Your task to perform on an android device: Search for flights from Boston to Zurich Image 0: 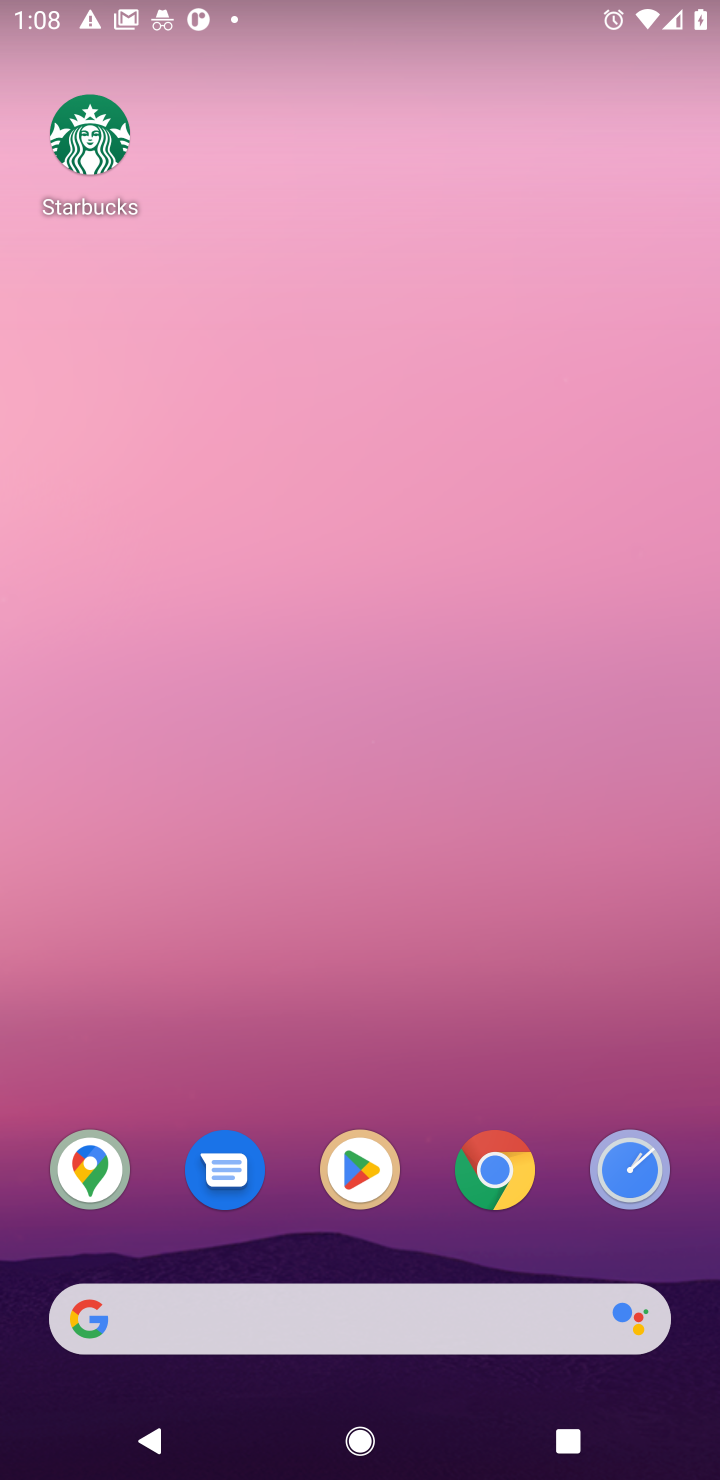
Step 0: click (503, 1181)
Your task to perform on an android device: Search for flights from Boston to Zurich Image 1: 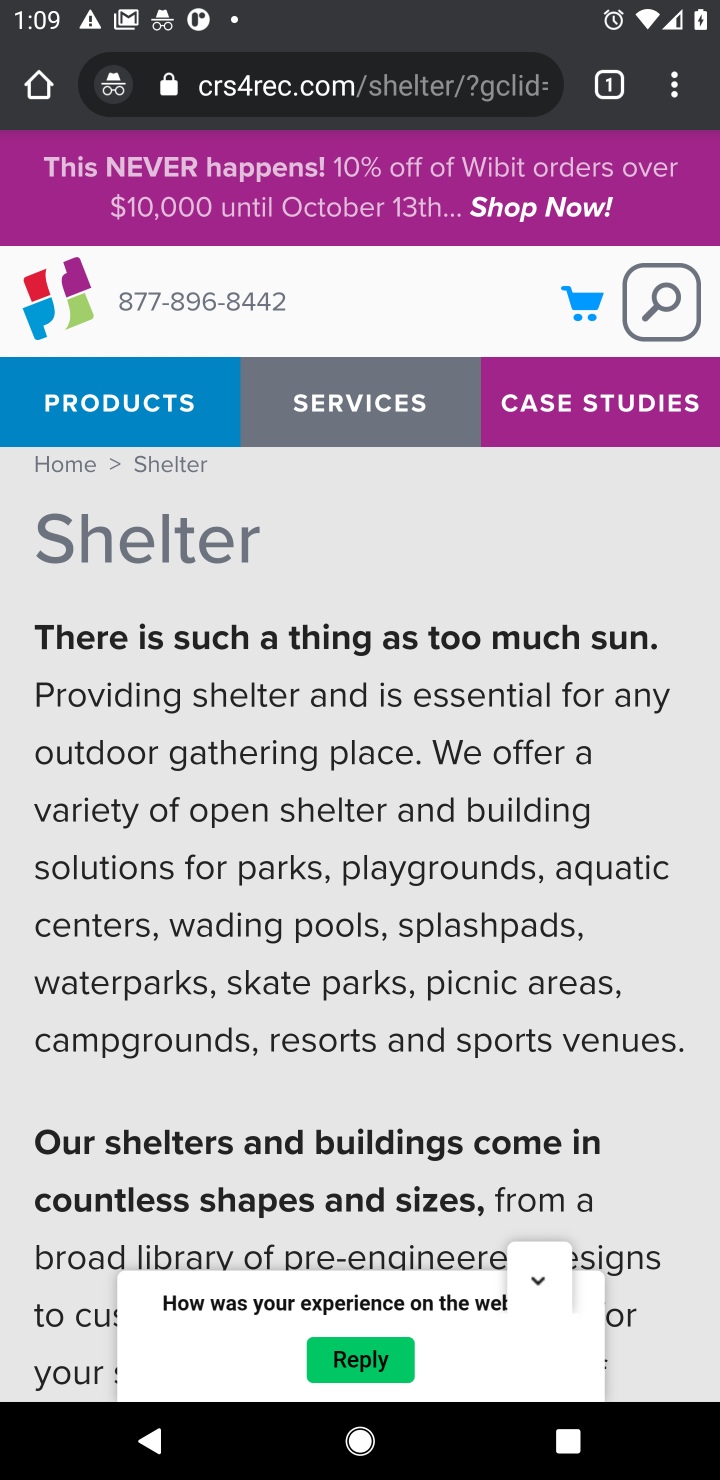
Step 1: click (368, 93)
Your task to perform on an android device: Search for flights from Boston to Zurich Image 2: 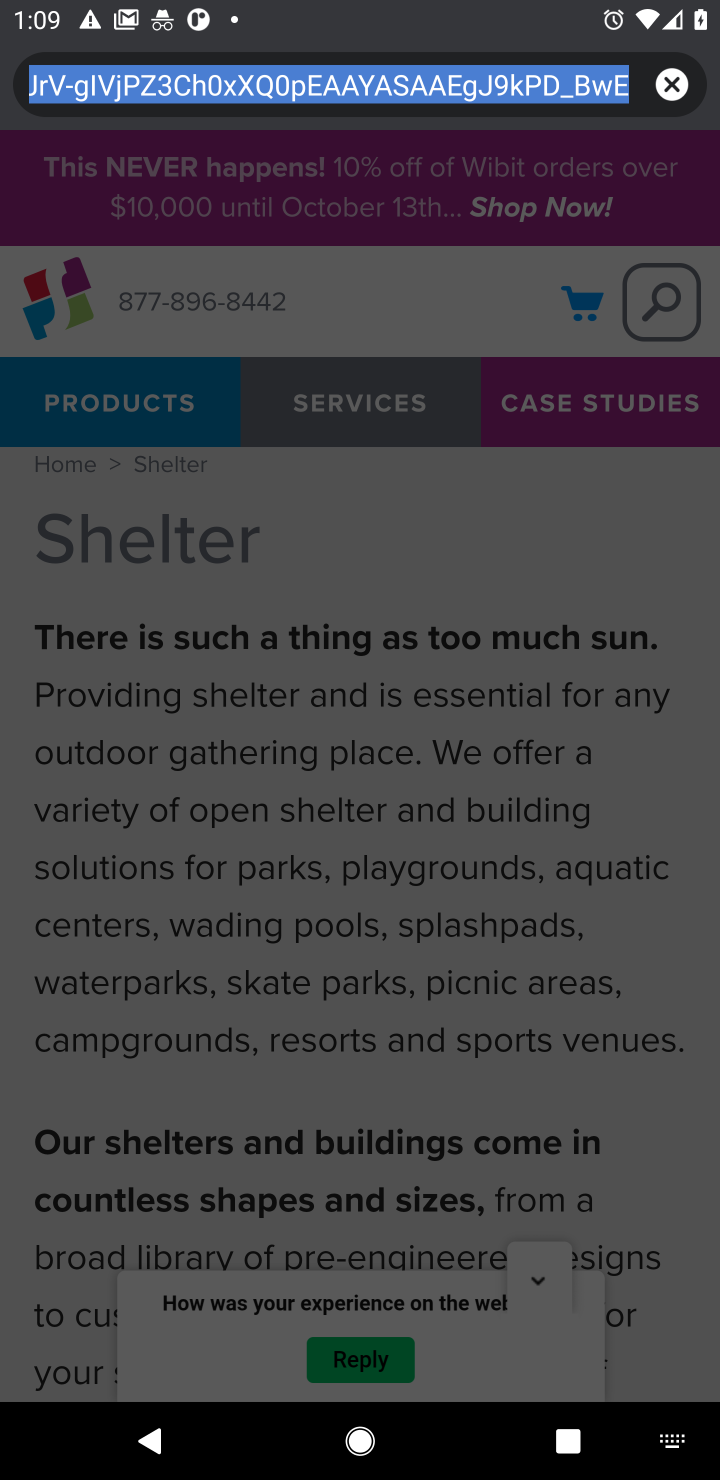
Step 2: click (663, 83)
Your task to perform on an android device: Search for flights from Boston to Zurich Image 3: 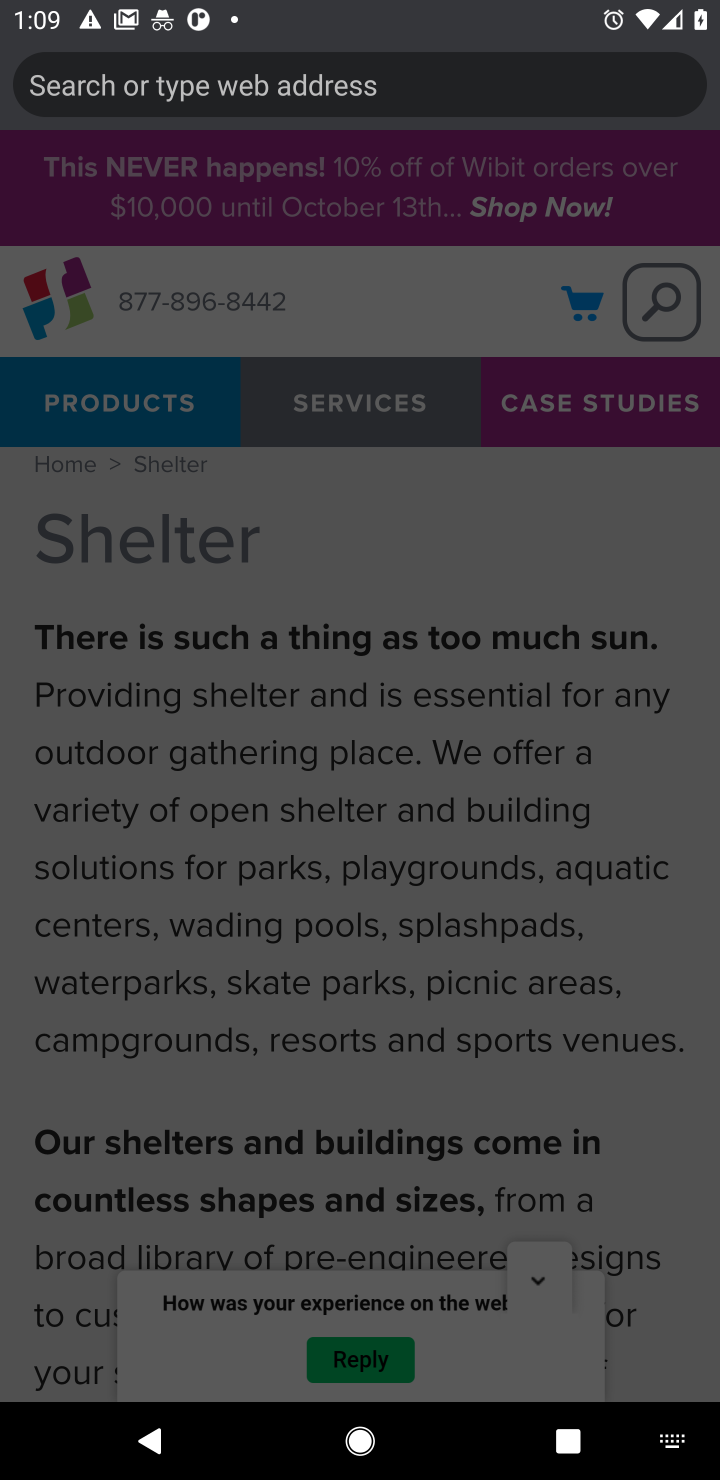
Step 3: type "flights from boston to zurich"
Your task to perform on an android device: Search for flights from Boston to Zurich Image 4: 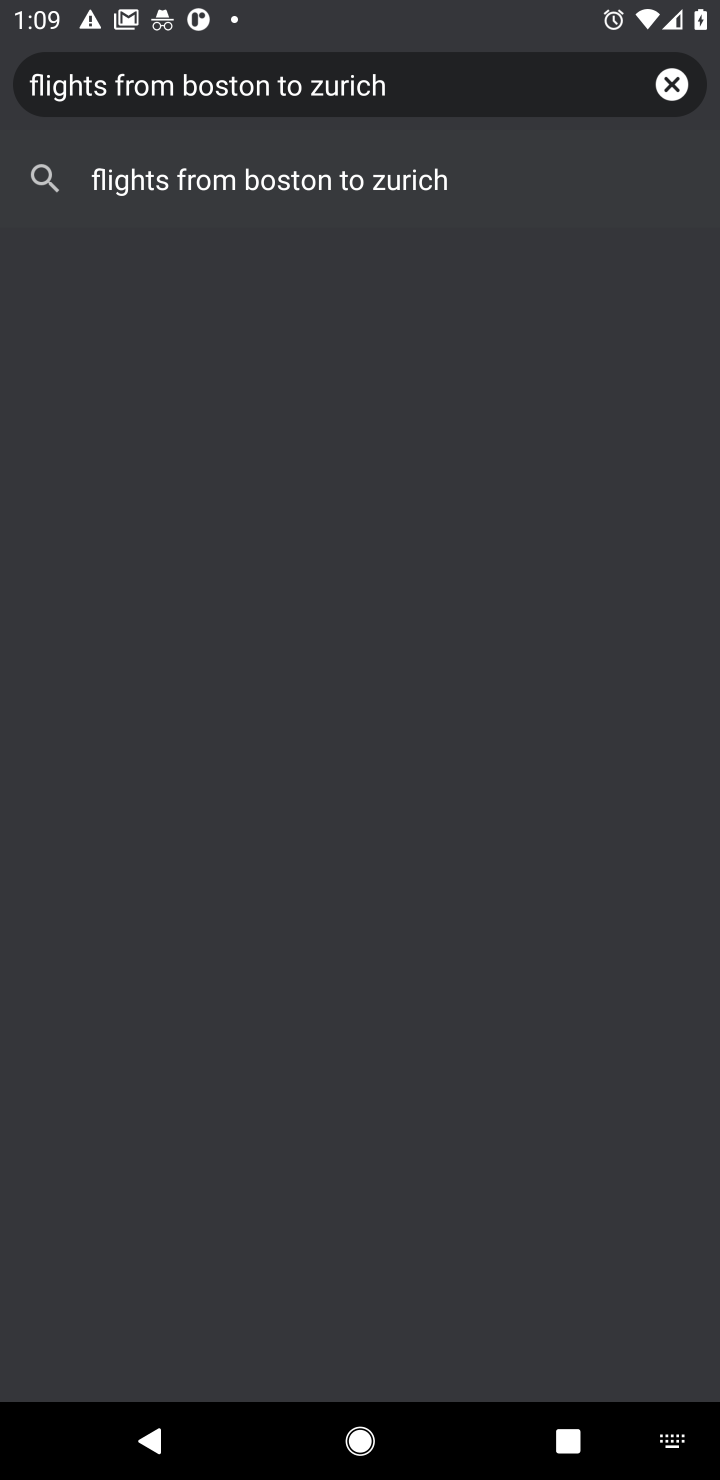
Step 4: type ""
Your task to perform on an android device: Search for flights from Boston to Zurich Image 5: 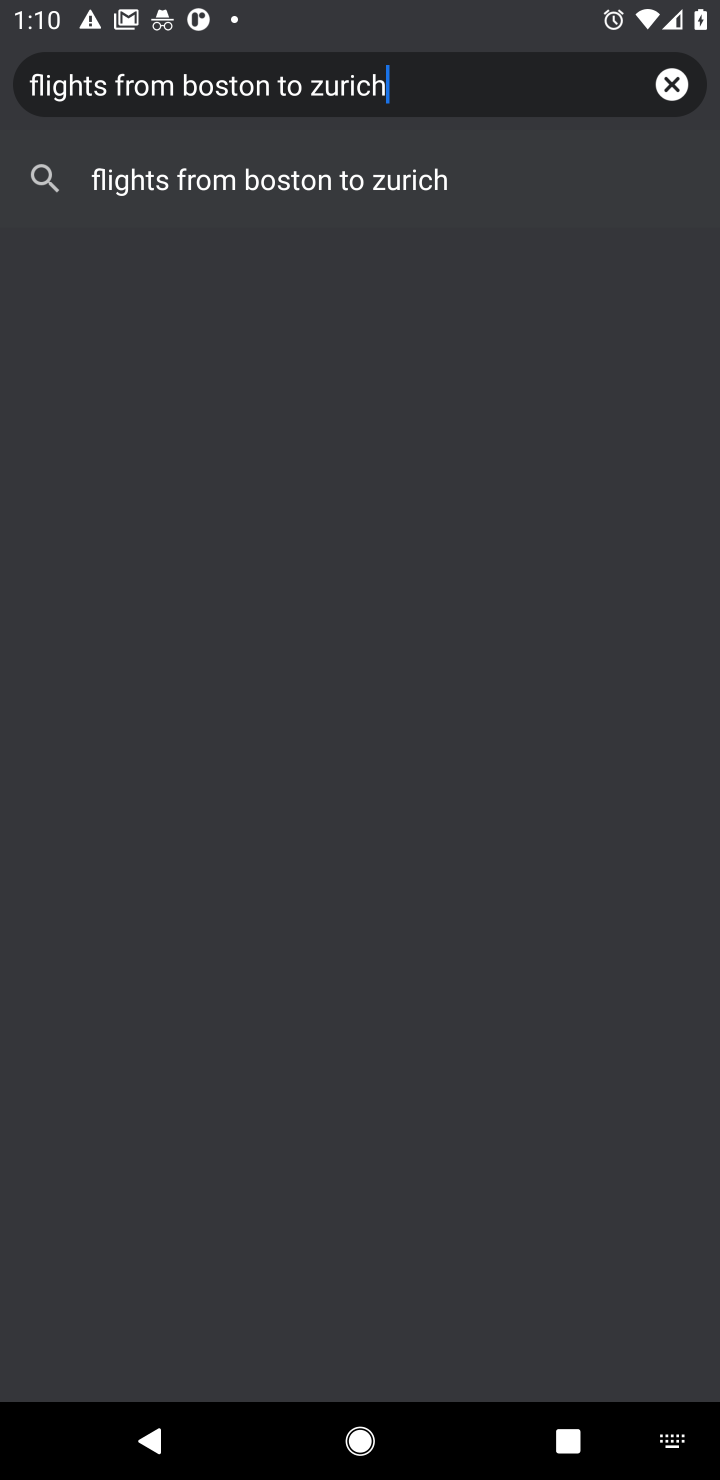
Step 5: click (288, 182)
Your task to perform on an android device: Search for flights from Boston to Zurich Image 6: 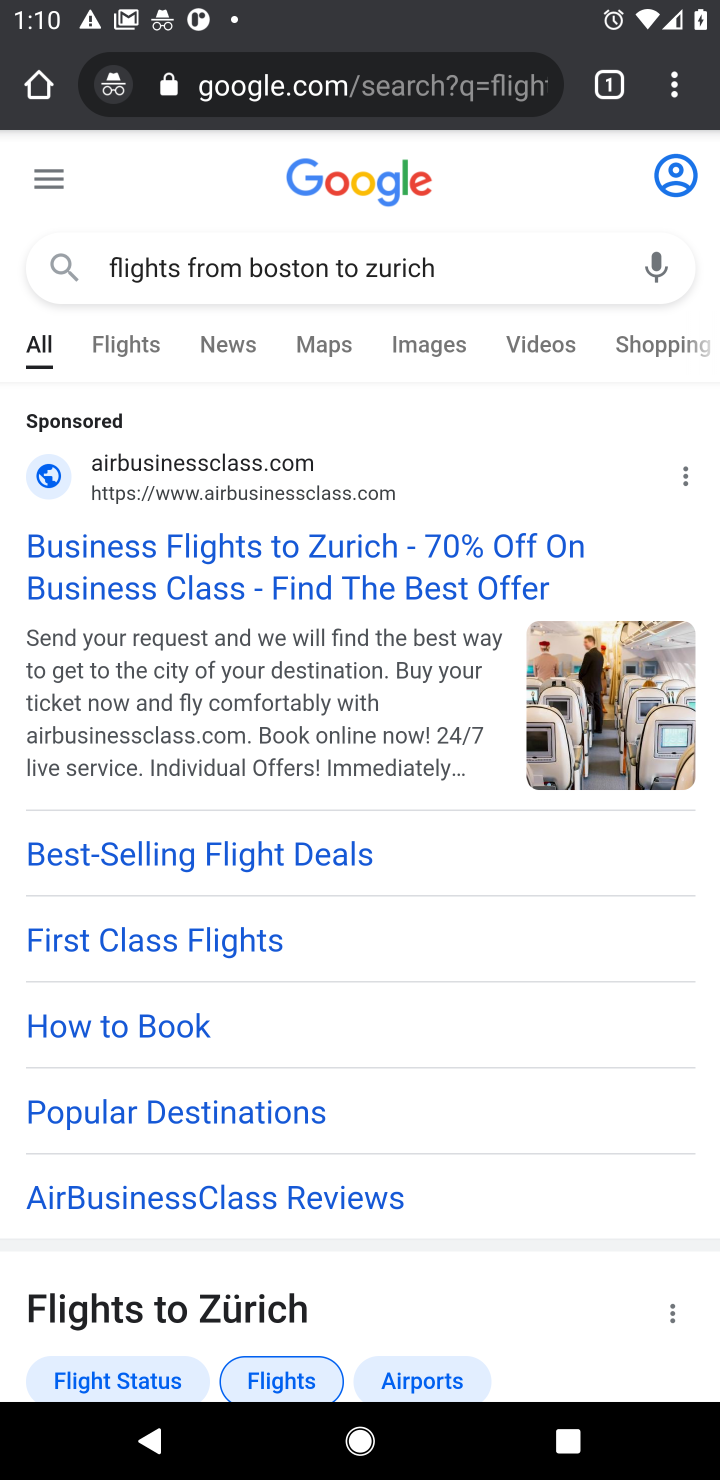
Step 6: click (193, 573)
Your task to perform on an android device: Search for flights from Boston to Zurich Image 7: 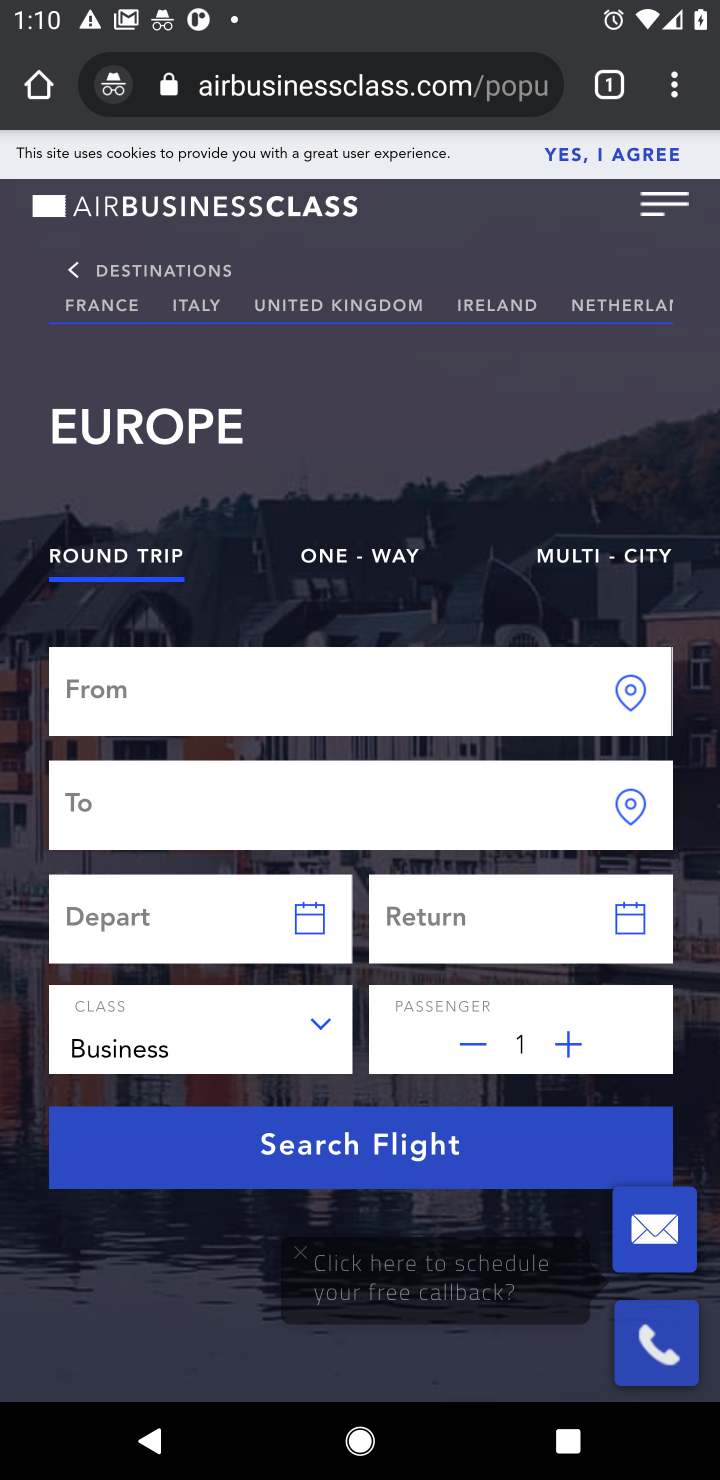
Step 7: task complete